Your task to perform on an android device: Go to privacy settings Image 0: 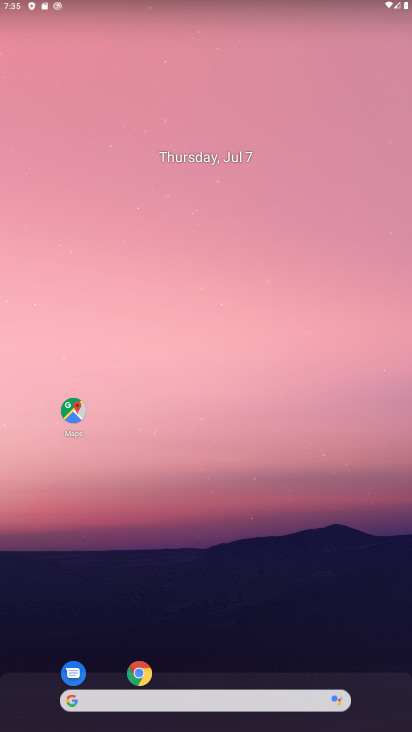
Step 0: drag from (201, 314) to (201, 57)
Your task to perform on an android device: Go to privacy settings Image 1: 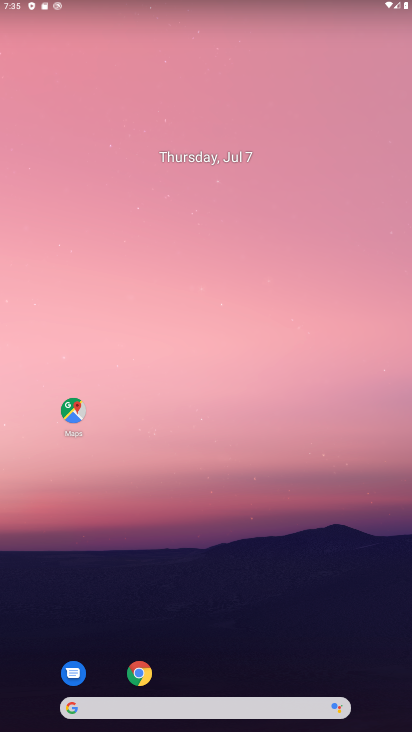
Step 1: drag from (180, 543) to (301, 0)
Your task to perform on an android device: Go to privacy settings Image 2: 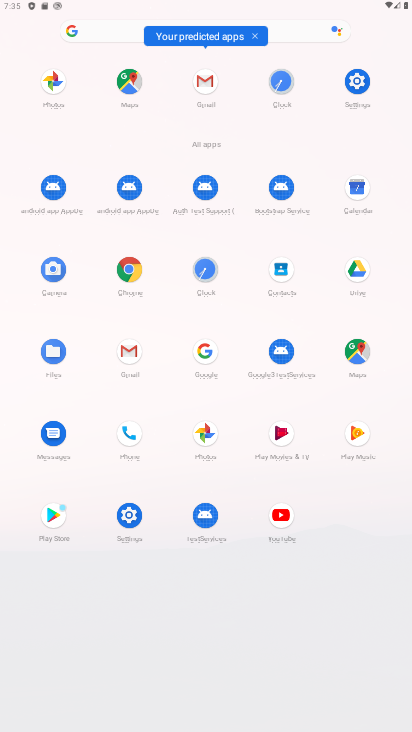
Step 2: click (351, 85)
Your task to perform on an android device: Go to privacy settings Image 3: 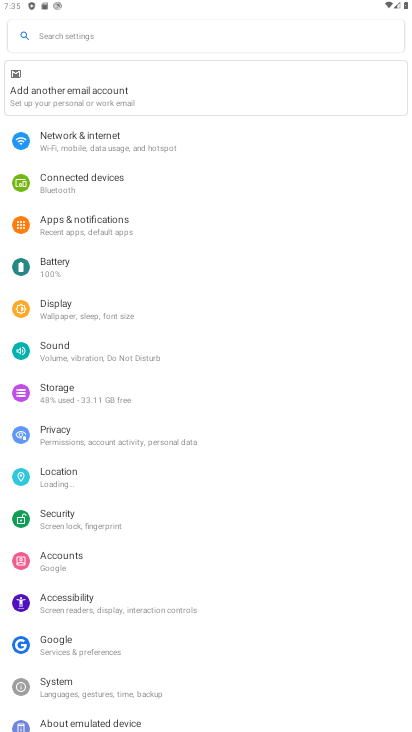
Step 3: click (66, 433)
Your task to perform on an android device: Go to privacy settings Image 4: 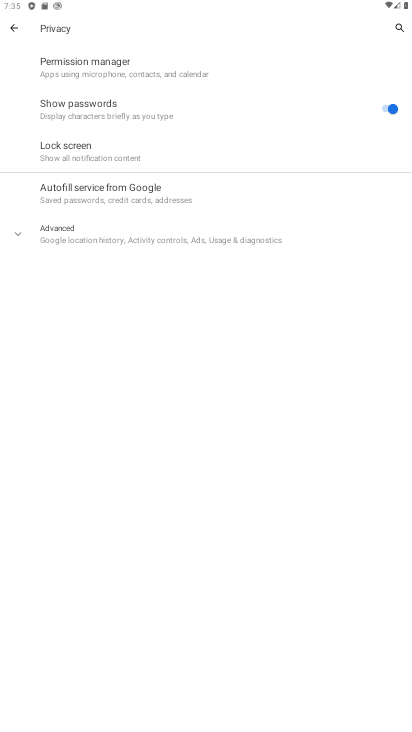
Step 4: task complete